Your task to perform on an android device: stop showing notifications on the lock screen Image 0: 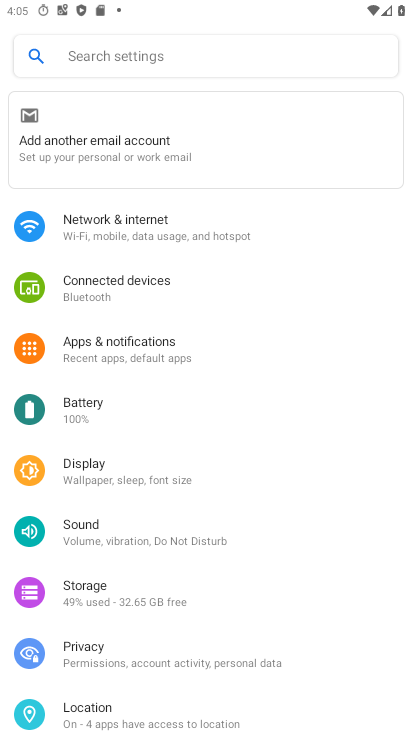
Step 0: press home button
Your task to perform on an android device: stop showing notifications on the lock screen Image 1: 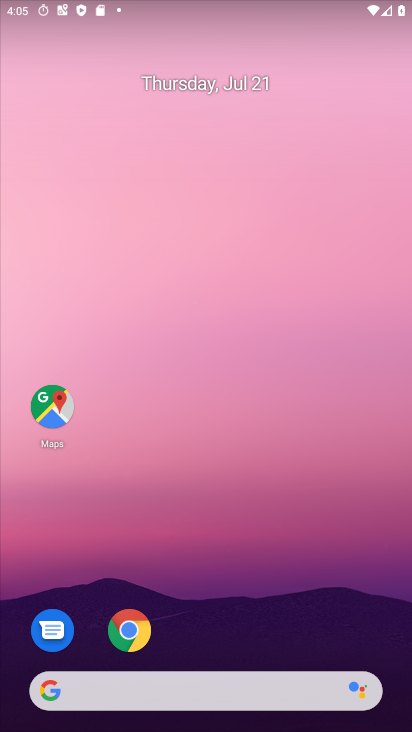
Step 1: drag from (216, 696) to (315, 18)
Your task to perform on an android device: stop showing notifications on the lock screen Image 2: 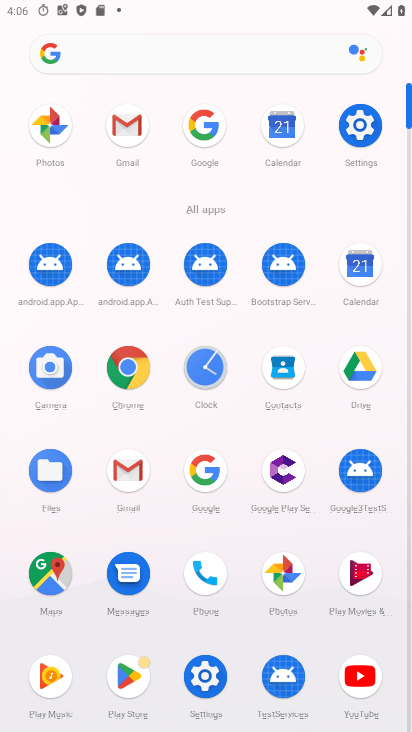
Step 2: click (359, 125)
Your task to perform on an android device: stop showing notifications on the lock screen Image 3: 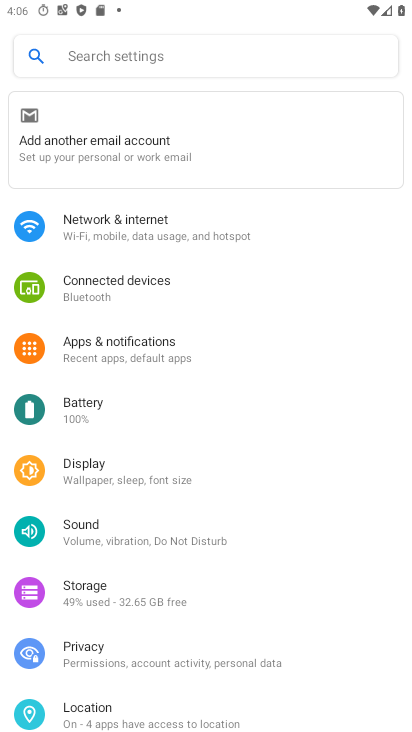
Step 3: click (149, 354)
Your task to perform on an android device: stop showing notifications on the lock screen Image 4: 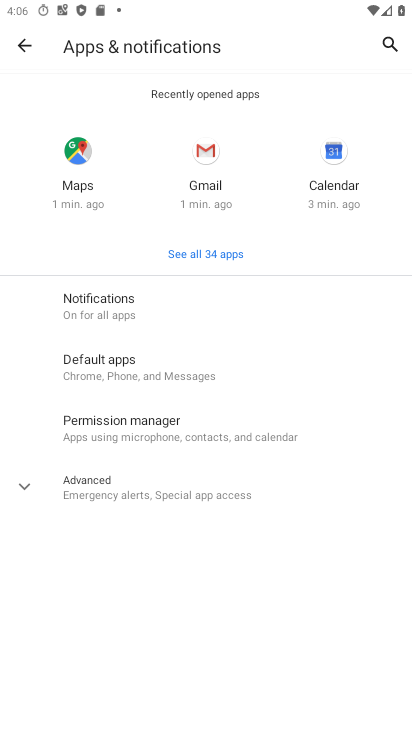
Step 4: click (114, 304)
Your task to perform on an android device: stop showing notifications on the lock screen Image 5: 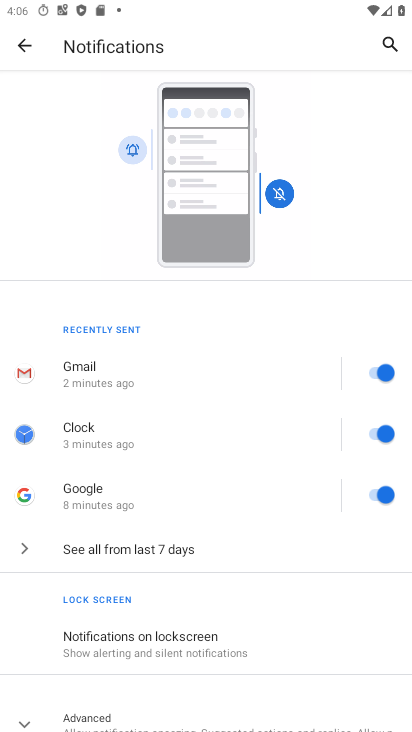
Step 5: click (129, 640)
Your task to perform on an android device: stop showing notifications on the lock screen Image 6: 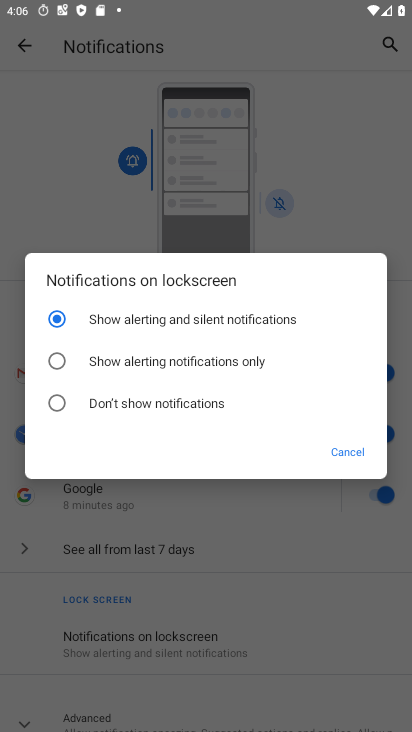
Step 6: click (56, 400)
Your task to perform on an android device: stop showing notifications on the lock screen Image 7: 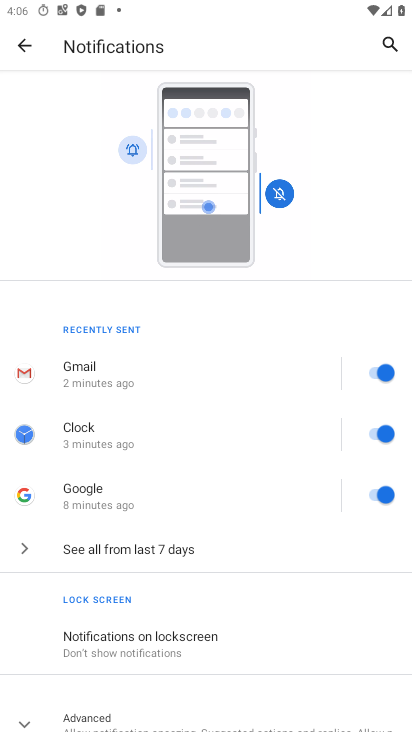
Step 7: task complete